Your task to perform on an android device: Open settings on Google Maps Image 0: 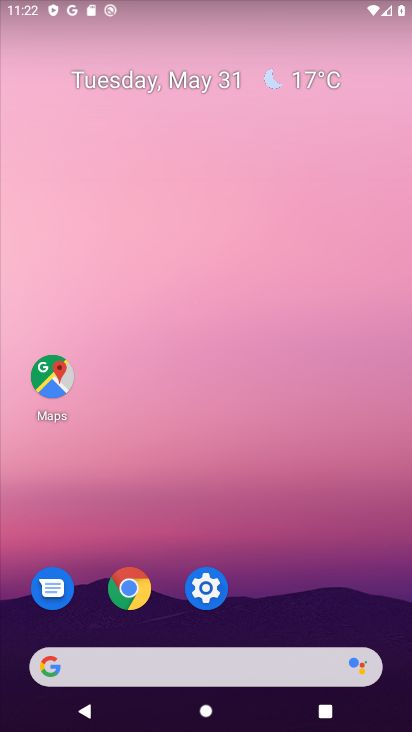
Step 0: press home button
Your task to perform on an android device: Open settings on Google Maps Image 1: 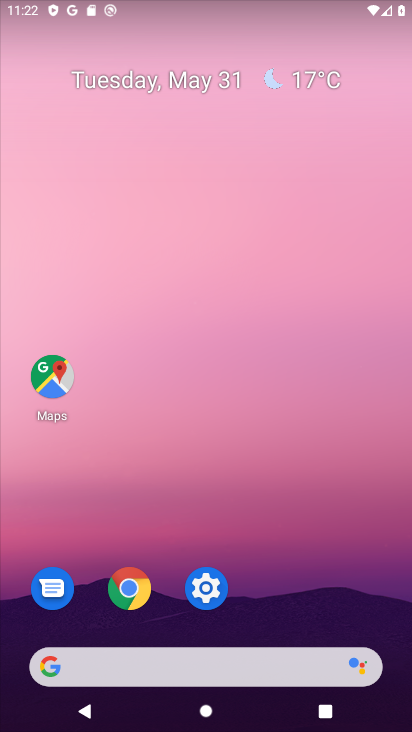
Step 1: click (54, 365)
Your task to perform on an android device: Open settings on Google Maps Image 2: 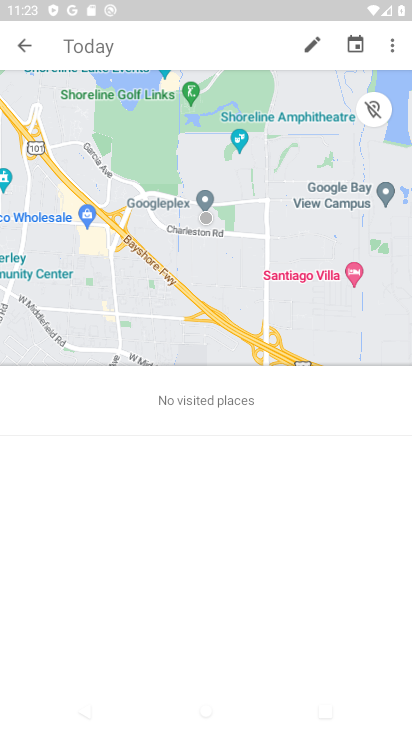
Step 2: click (18, 43)
Your task to perform on an android device: Open settings on Google Maps Image 3: 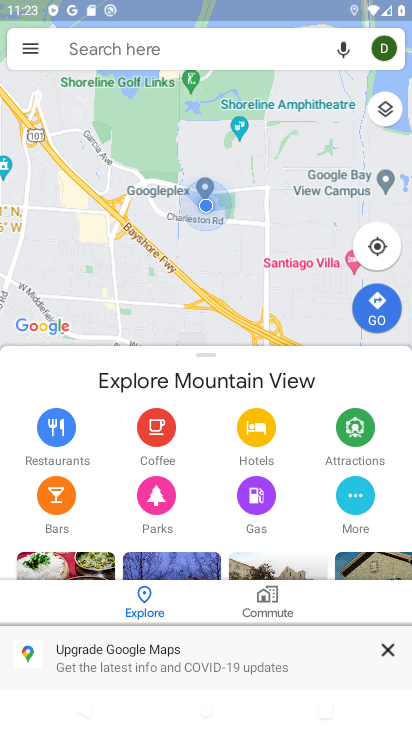
Step 3: click (31, 49)
Your task to perform on an android device: Open settings on Google Maps Image 4: 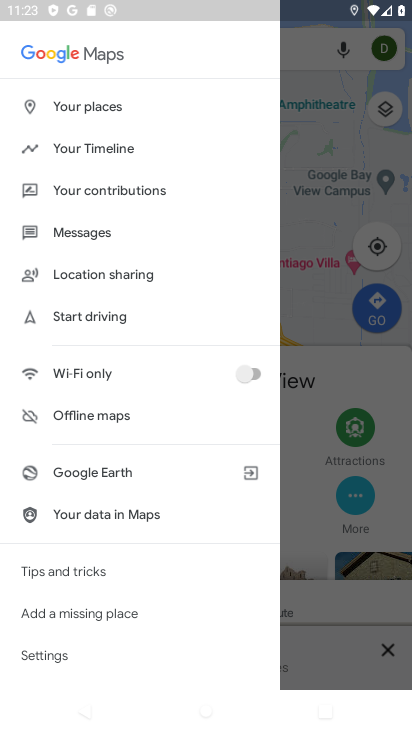
Step 4: click (68, 649)
Your task to perform on an android device: Open settings on Google Maps Image 5: 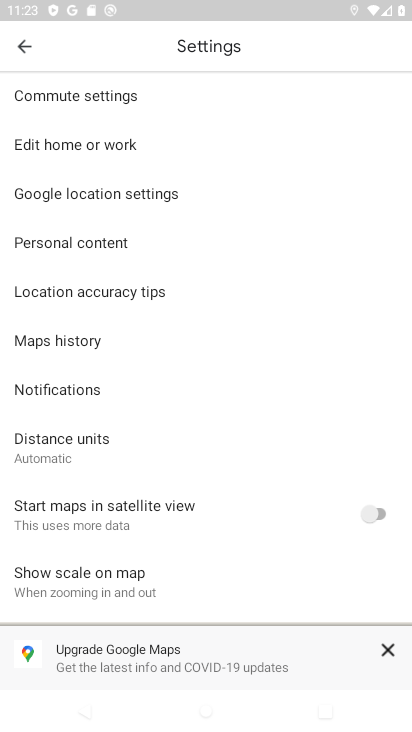
Step 5: task complete